Your task to perform on an android device: Open maps Image 0: 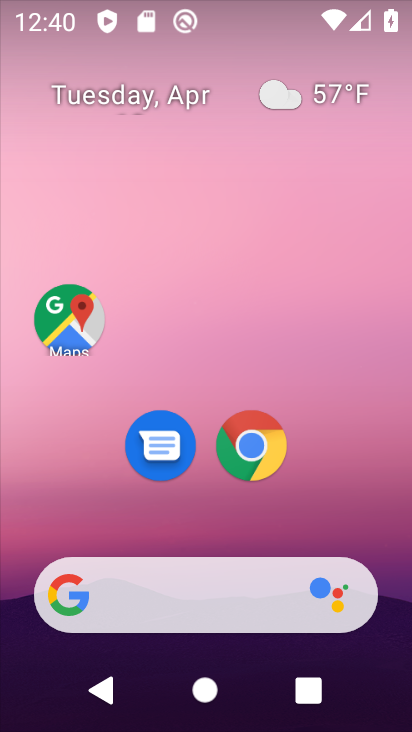
Step 0: click (68, 328)
Your task to perform on an android device: Open maps Image 1: 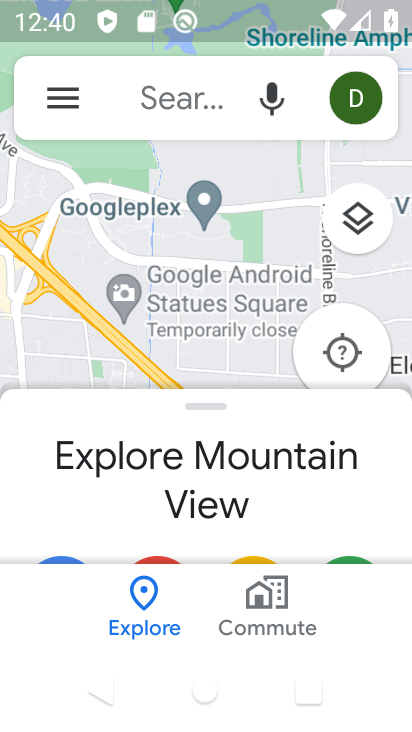
Step 1: click (222, 95)
Your task to perform on an android device: Open maps Image 2: 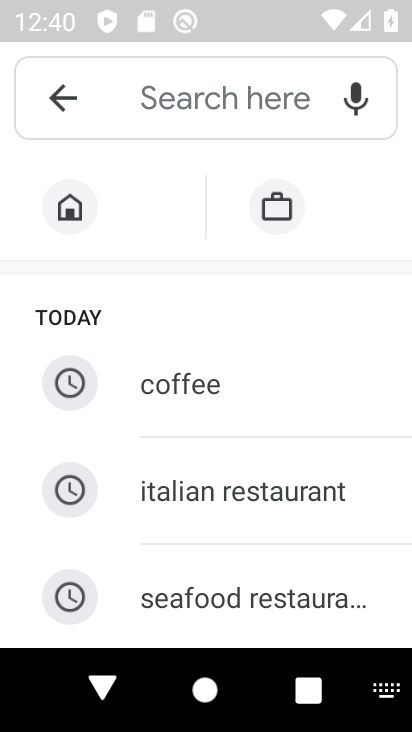
Step 2: task complete